Your task to perform on an android device: delete browsing data in the chrome app Image 0: 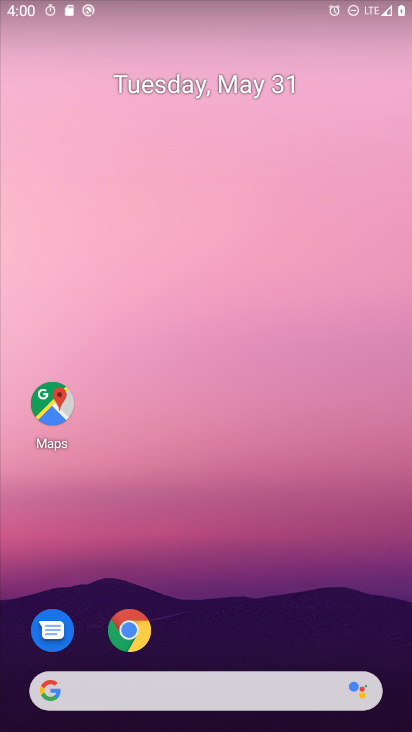
Step 0: drag from (285, 678) to (274, 63)
Your task to perform on an android device: delete browsing data in the chrome app Image 1: 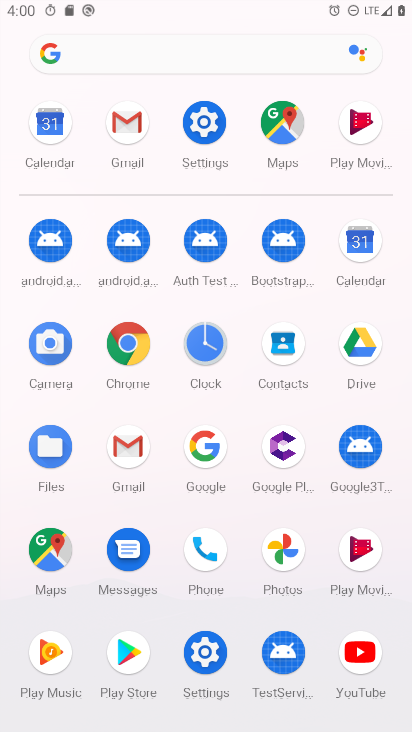
Step 1: click (122, 343)
Your task to perform on an android device: delete browsing data in the chrome app Image 2: 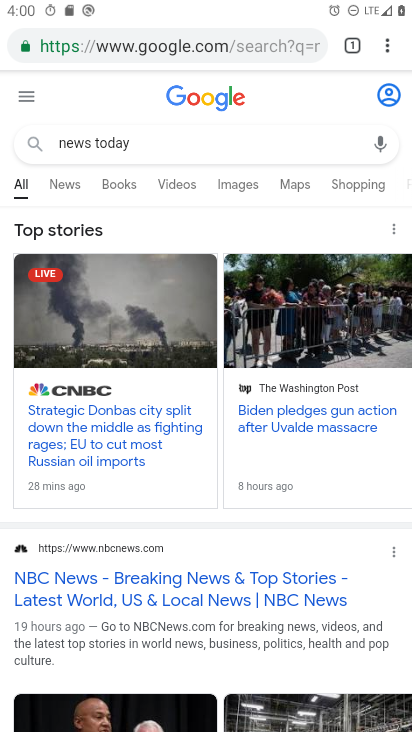
Step 2: drag from (392, 45) to (257, 512)
Your task to perform on an android device: delete browsing data in the chrome app Image 3: 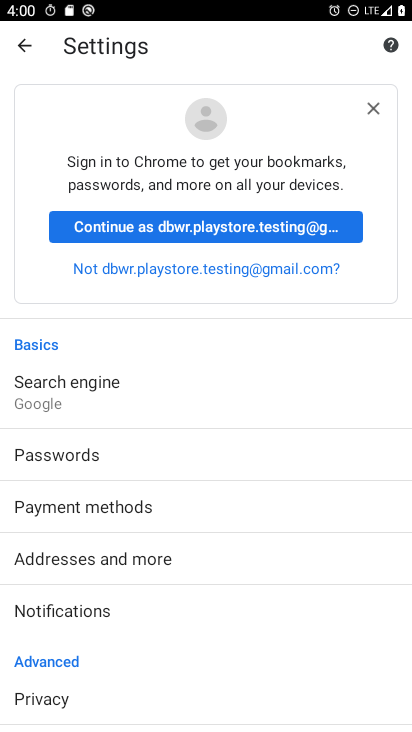
Step 3: drag from (209, 675) to (272, 156)
Your task to perform on an android device: delete browsing data in the chrome app Image 4: 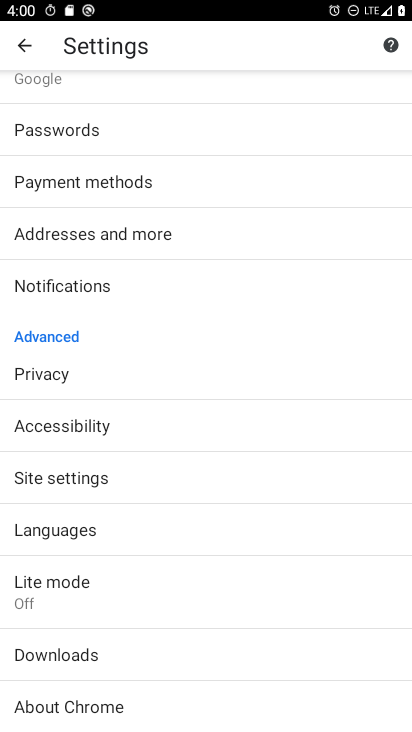
Step 4: click (87, 373)
Your task to perform on an android device: delete browsing data in the chrome app Image 5: 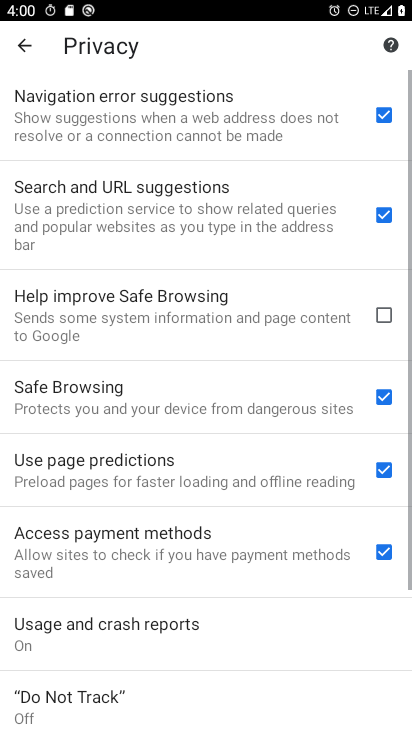
Step 5: drag from (207, 681) to (277, 0)
Your task to perform on an android device: delete browsing data in the chrome app Image 6: 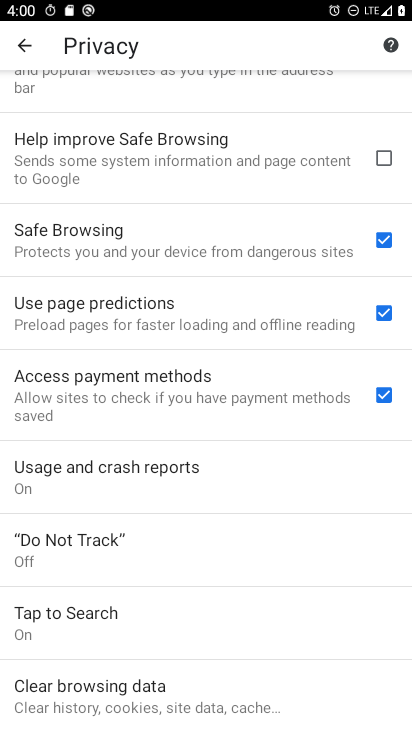
Step 6: click (125, 710)
Your task to perform on an android device: delete browsing data in the chrome app Image 7: 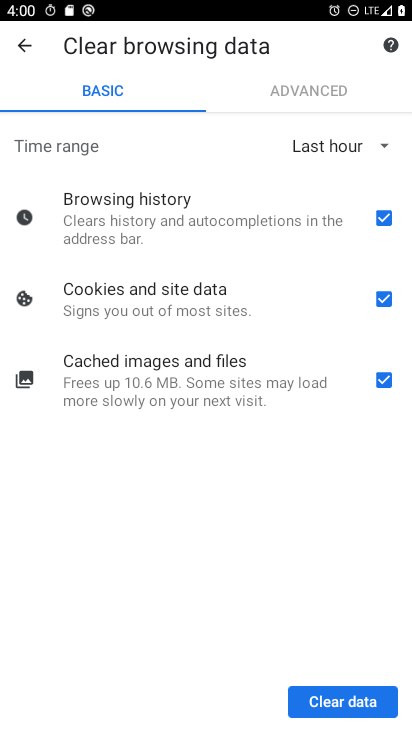
Step 7: click (303, 704)
Your task to perform on an android device: delete browsing data in the chrome app Image 8: 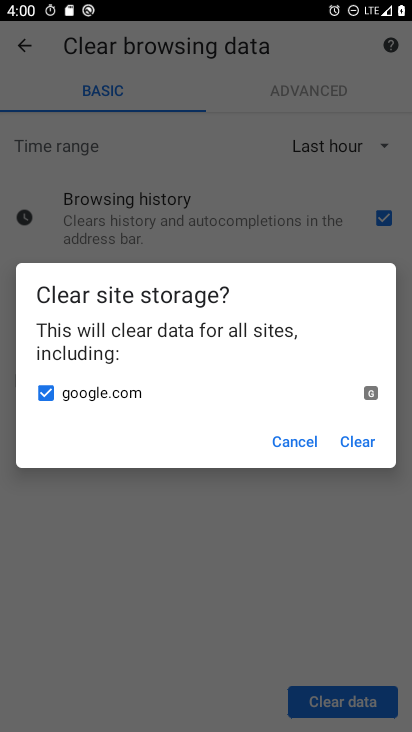
Step 8: click (345, 445)
Your task to perform on an android device: delete browsing data in the chrome app Image 9: 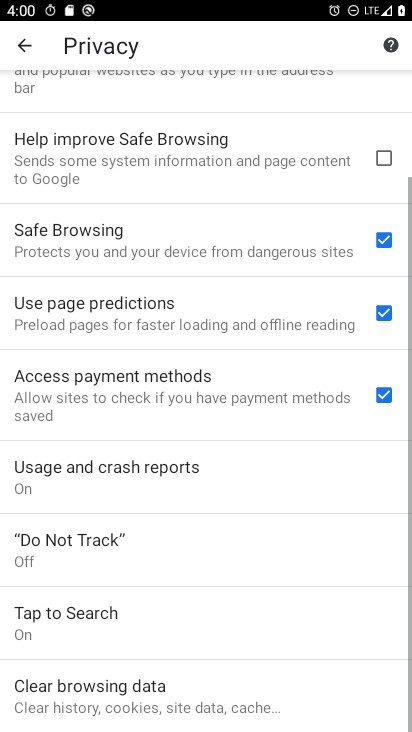
Step 9: task complete